Your task to perform on an android device: Search for acer nitro on newegg.com, select the first entry, and add it to the cart. Image 0: 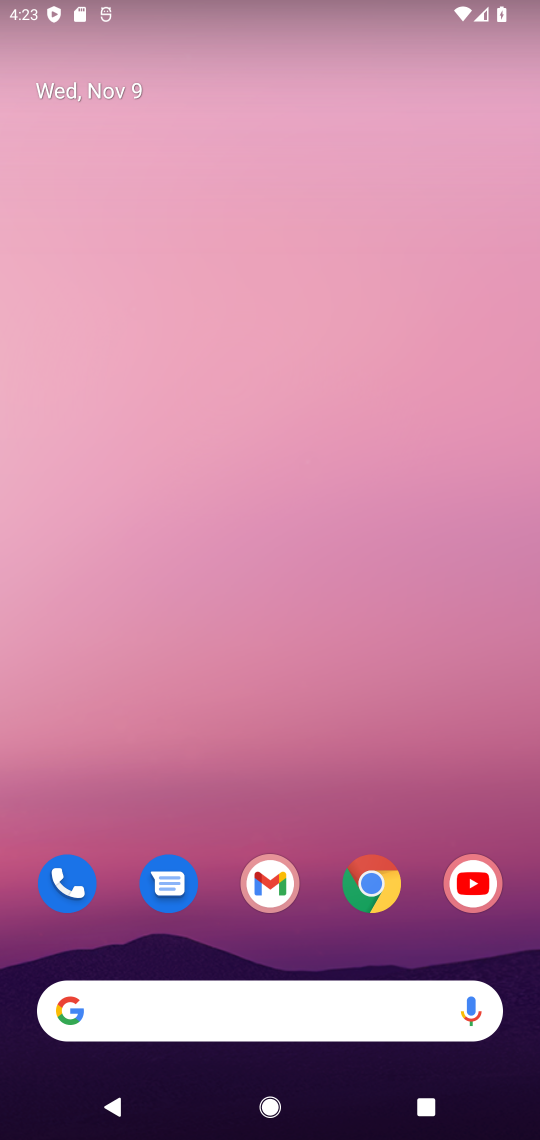
Step 0: click (362, 901)
Your task to perform on an android device: Search for acer nitro on newegg.com, select the first entry, and add it to the cart. Image 1: 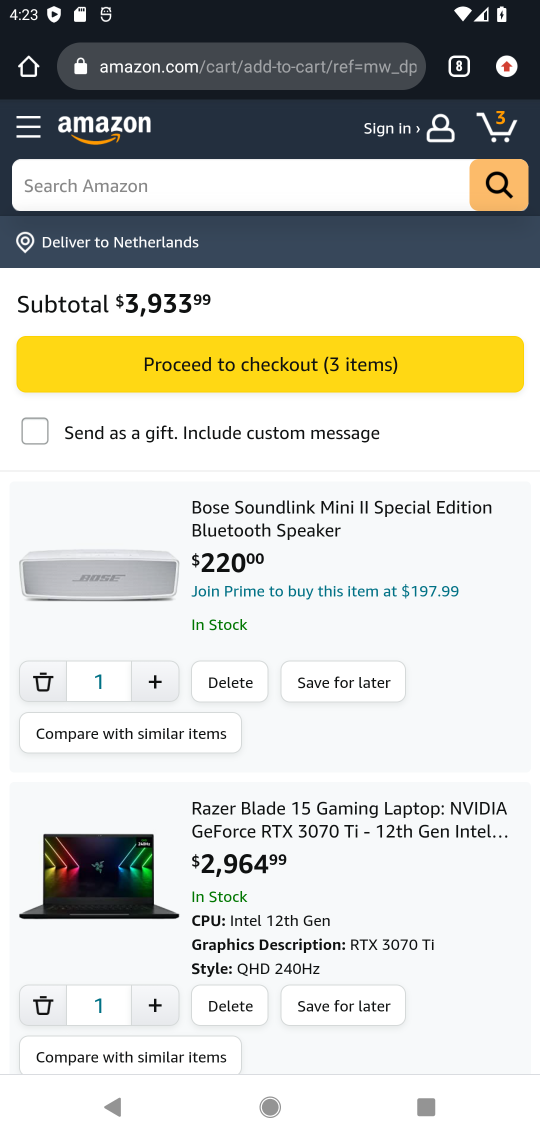
Step 1: click (461, 77)
Your task to perform on an android device: Search for acer nitro on newegg.com, select the first entry, and add it to the cart. Image 2: 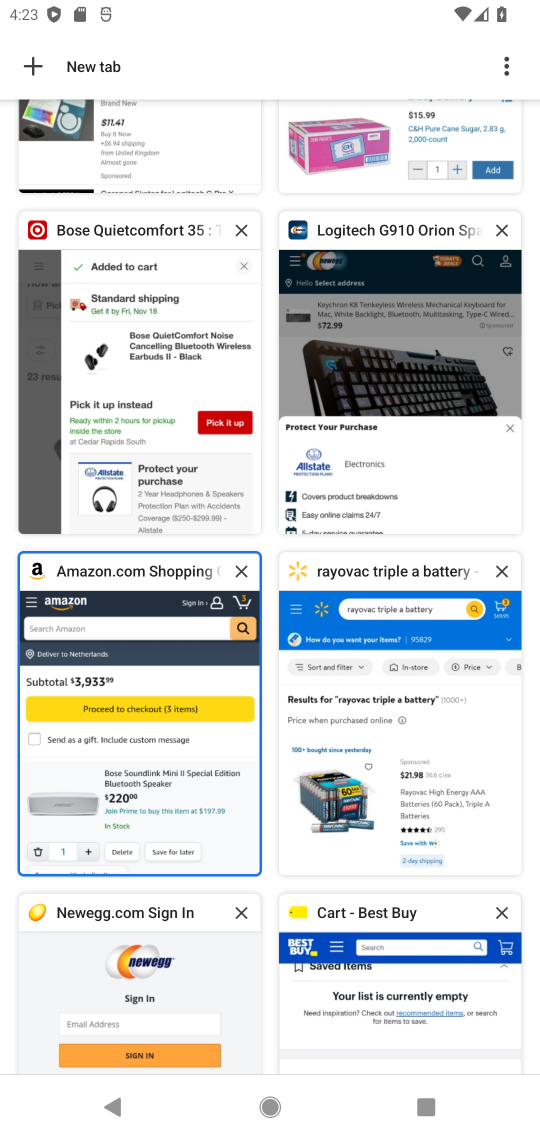
Step 2: click (398, 437)
Your task to perform on an android device: Search for acer nitro on newegg.com, select the first entry, and add it to the cart. Image 3: 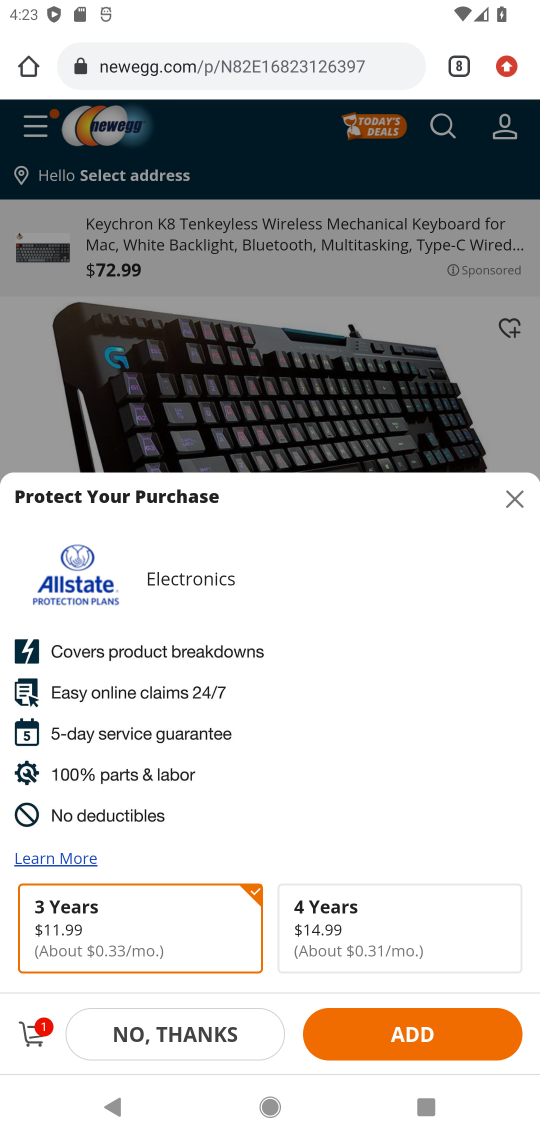
Step 3: click (509, 495)
Your task to perform on an android device: Search for acer nitro on newegg.com, select the first entry, and add it to the cart. Image 4: 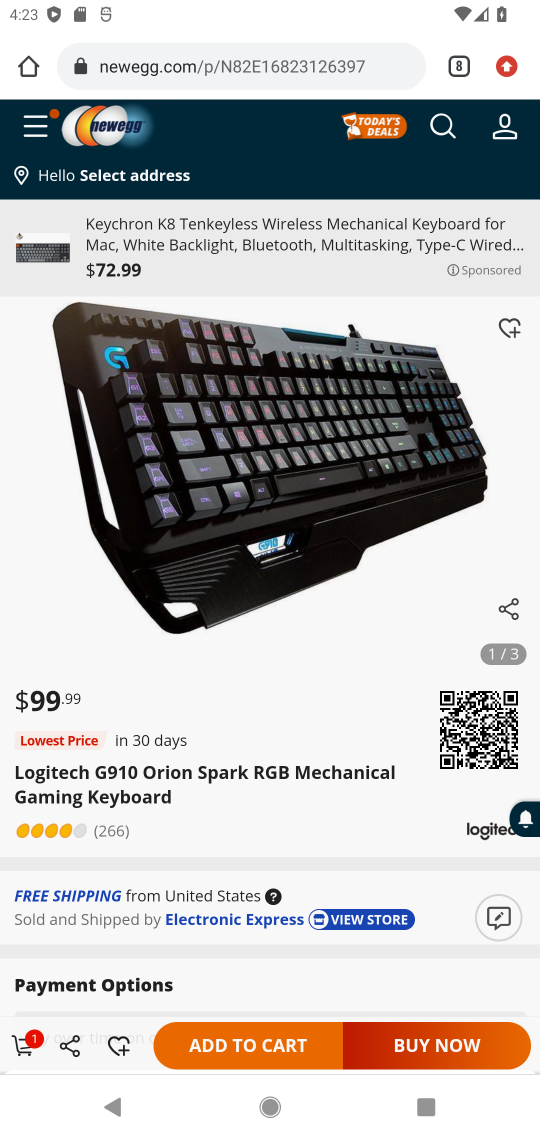
Step 4: click (453, 121)
Your task to perform on an android device: Search for acer nitro on newegg.com, select the first entry, and add it to the cart. Image 5: 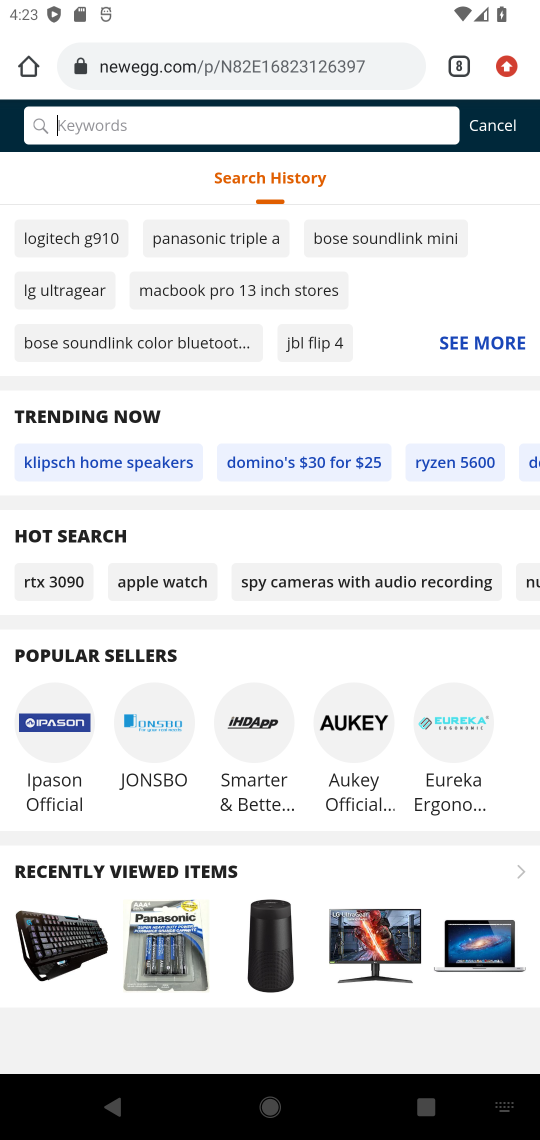
Step 5: type "acer nitro"
Your task to perform on an android device: Search for acer nitro on newegg.com, select the first entry, and add it to the cart. Image 6: 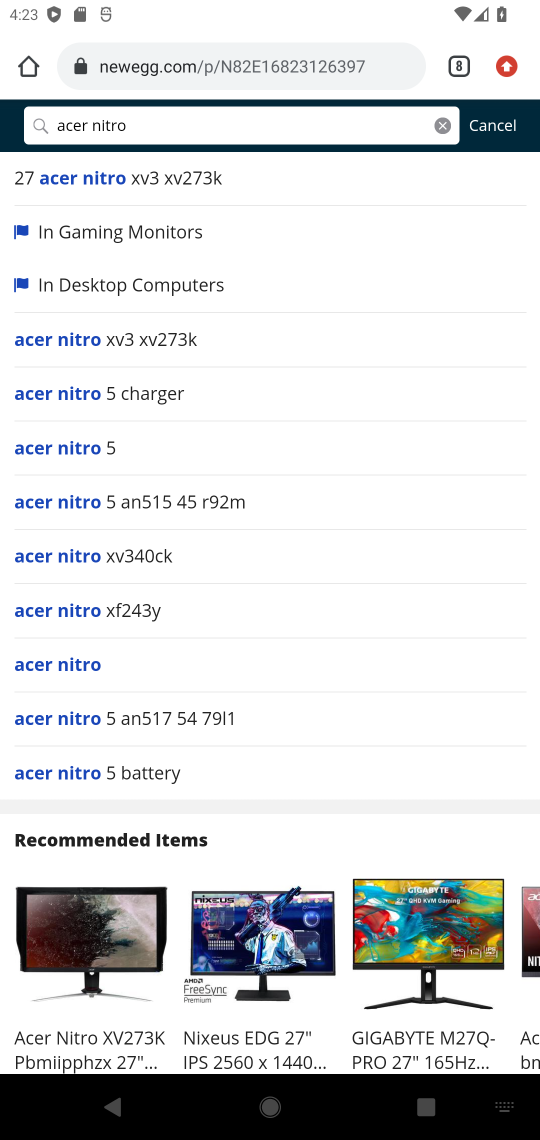
Step 6: click (86, 336)
Your task to perform on an android device: Search for acer nitro on newegg.com, select the first entry, and add it to the cart. Image 7: 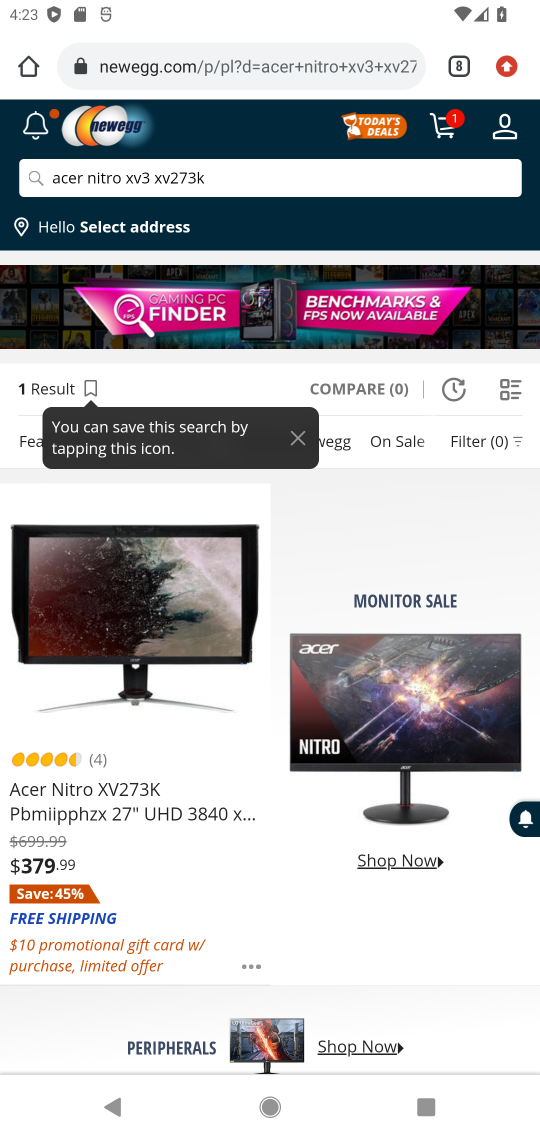
Step 7: click (139, 801)
Your task to perform on an android device: Search for acer nitro on newegg.com, select the first entry, and add it to the cart. Image 8: 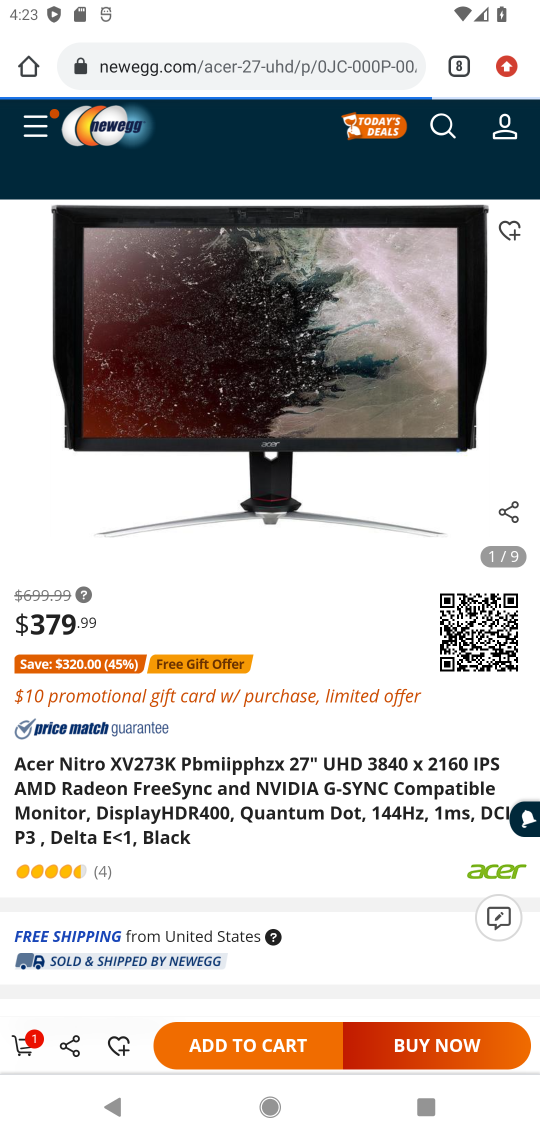
Step 8: click (264, 1037)
Your task to perform on an android device: Search for acer nitro on newegg.com, select the first entry, and add it to the cart. Image 9: 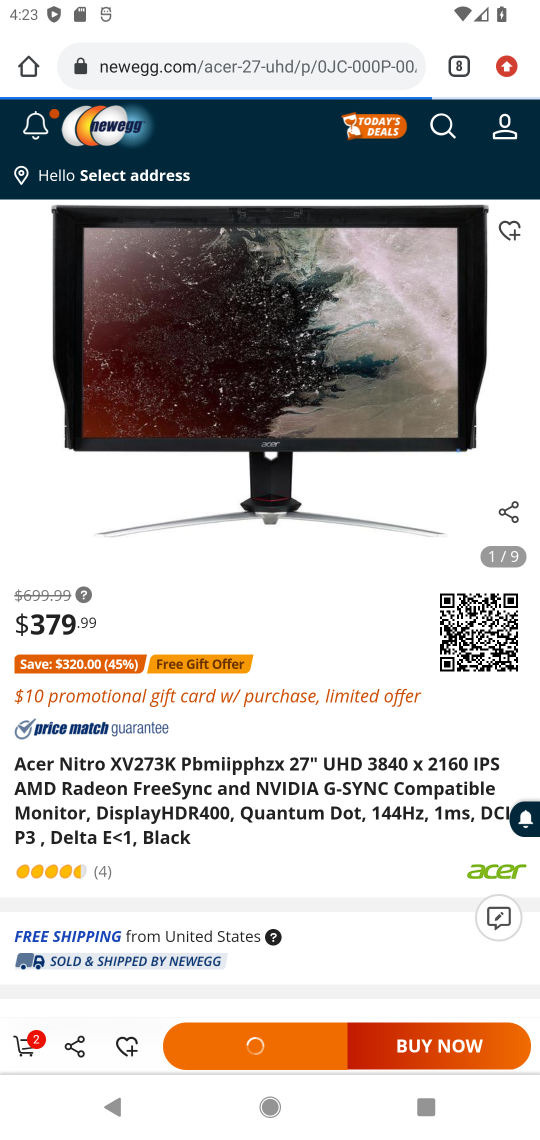
Step 9: click (253, 1048)
Your task to perform on an android device: Search for acer nitro on newegg.com, select the first entry, and add it to the cart. Image 10: 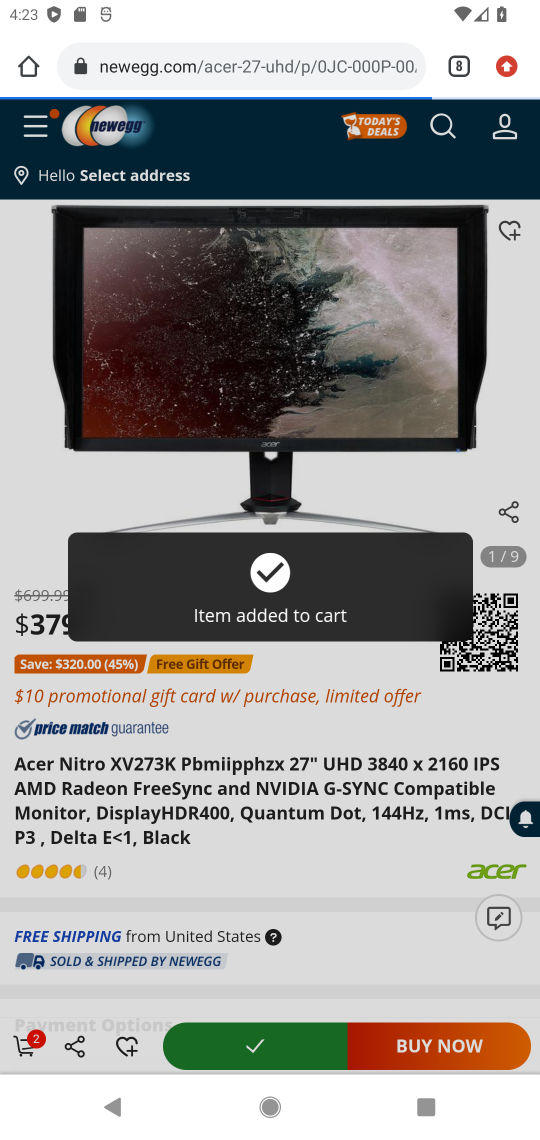
Step 10: task complete